Your task to perform on an android device: Go to Maps Image 0: 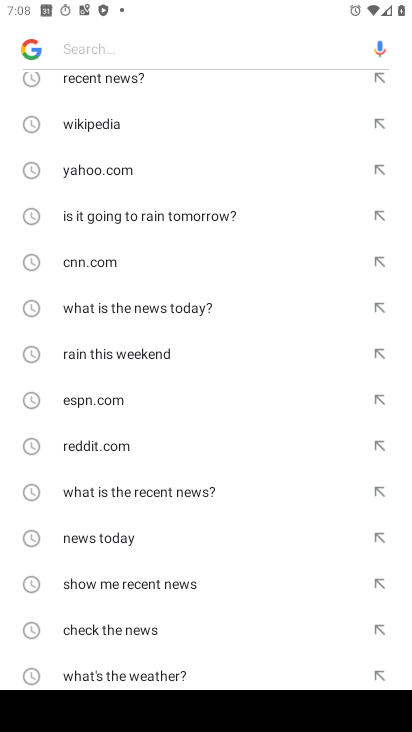
Step 0: press home button
Your task to perform on an android device: Go to Maps Image 1: 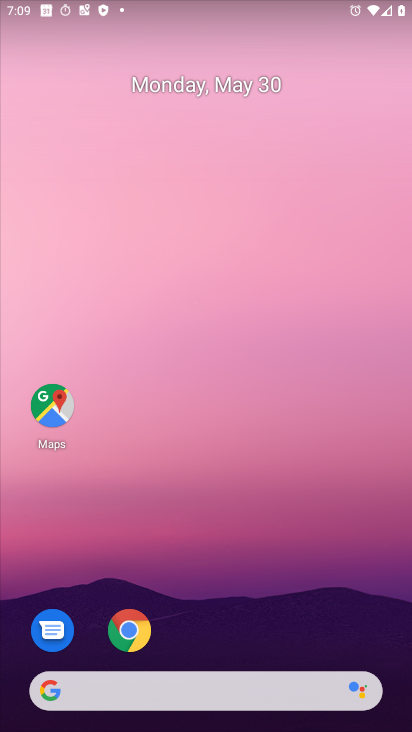
Step 1: drag from (357, 639) to (271, 10)
Your task to perform on an android device: Go to Maps Image 2: 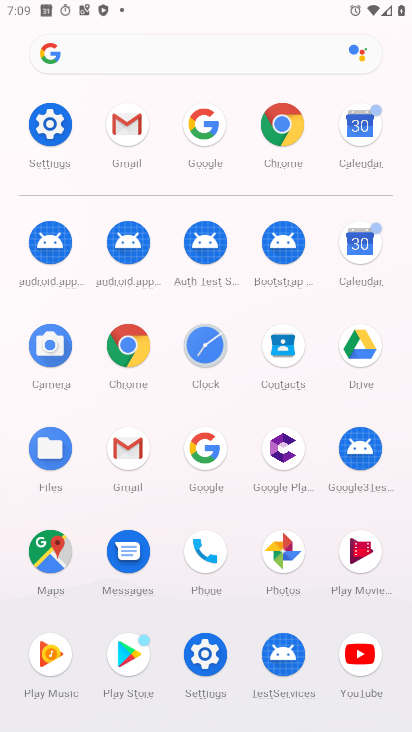
Step 2: click (63, 546)
Your task to perform on an android device: Go to Maps Image 3: 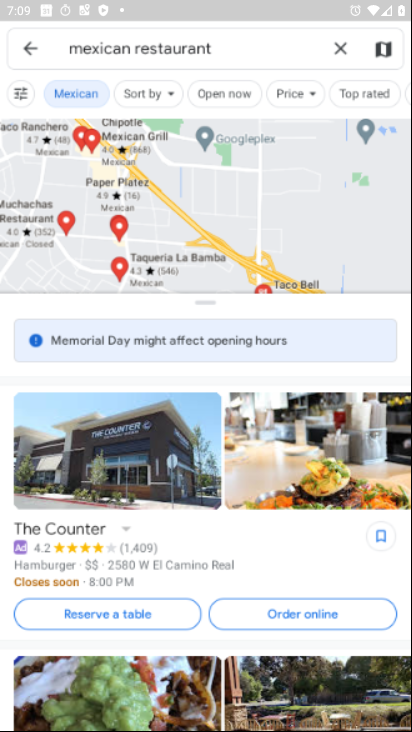
Step 3: task complete